Your task to perform on an android device: change the clock display to analog Image 0: 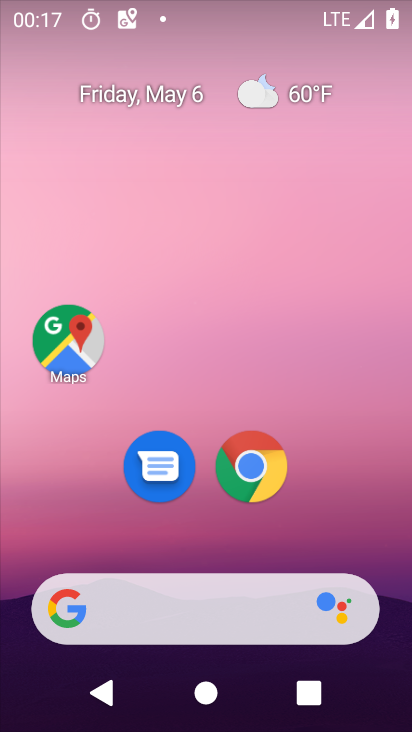
Step 0: drag from (171, 548) to (257, 224)
Your task to perform on an android device: change the clock display to analog Image 1: 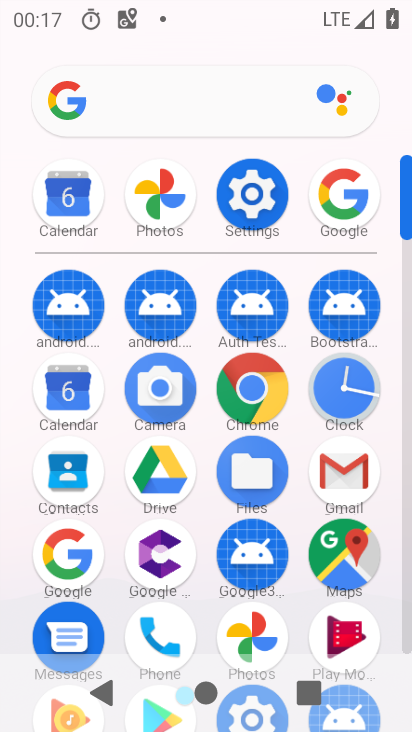
Step 1: click (342, 402)
Your task to perform on an android device: change the clock display to analog Image 2: 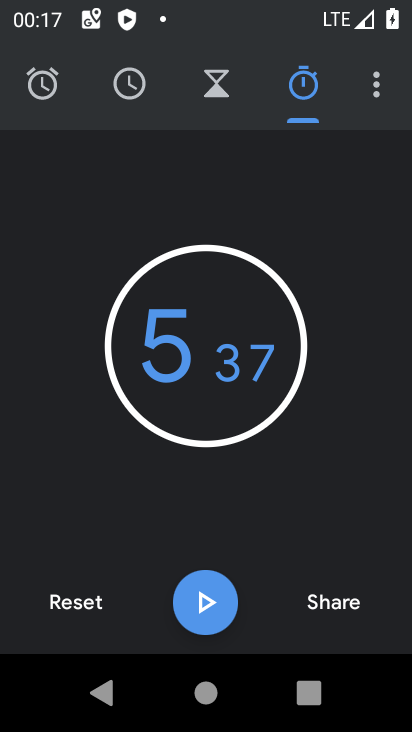
Step 2: click (377, 93)
Your task to perform on an android device: change the clock display to analog Image 3: 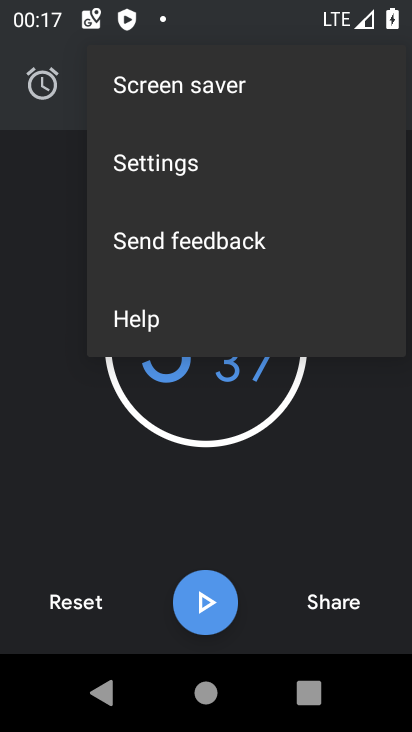
Step 3: click (184, 157)
Your task to perform on an android device: change the clock display to analog Image 4: 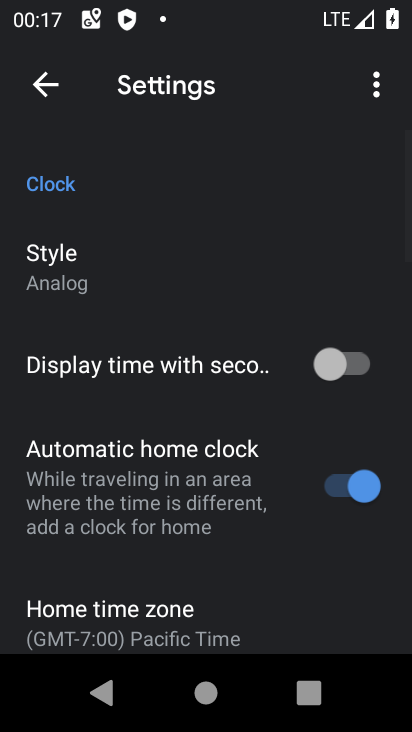
Step 4: task complete